Your task to perform on an android device: turn off javascript in the chrome app Image 0: 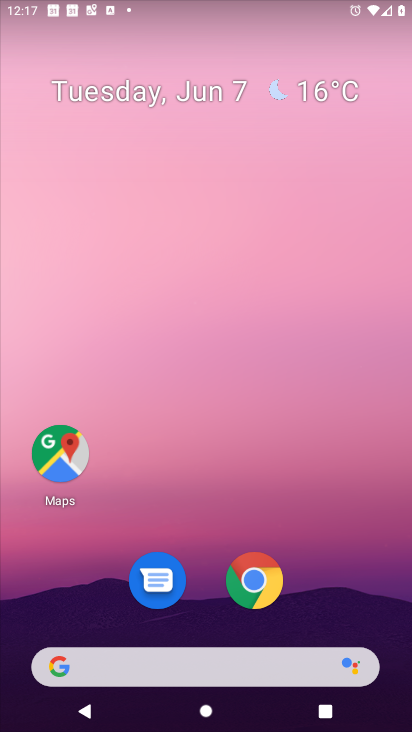
Step 0: drag from (384, 579) to (392, 198)
Your task to perform on an android device: turn off javascript in the chrome app Image 1: 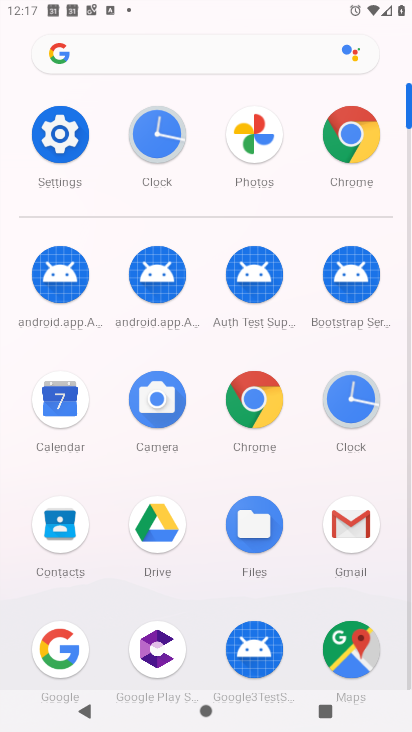
Step 1: click (354, 155)
Your task to perform on an android device: turn off javascript in the chrome app Image 2: 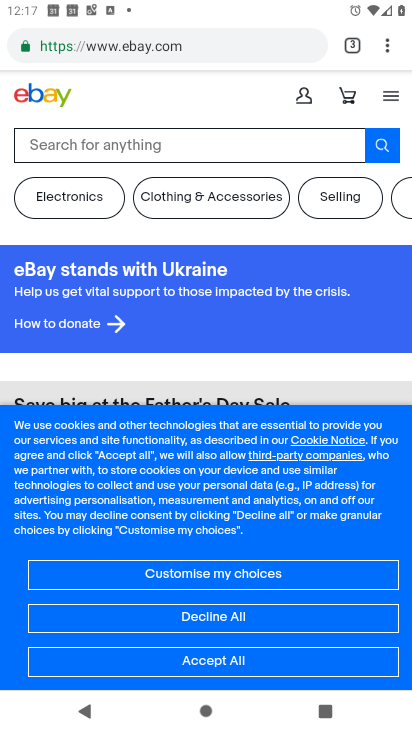
Step 2: drag from (396, 51) to (212, 561)
Your task to perform on an android device: turn off javascript in the chrome app Image 3: 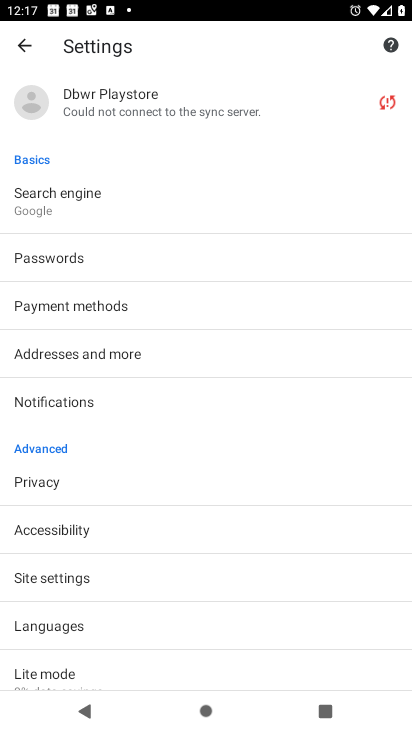
Step 3: click (81, 585)
Your task to perform on an android device: turn off javascript in the chrome app Image 4: 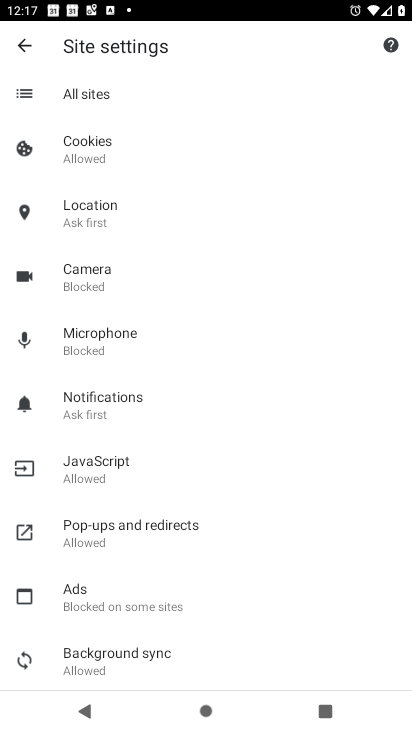
Step 4: click (69, 479)
Your task to perform on an android device: turn off javascript in the chrome app Image 5: 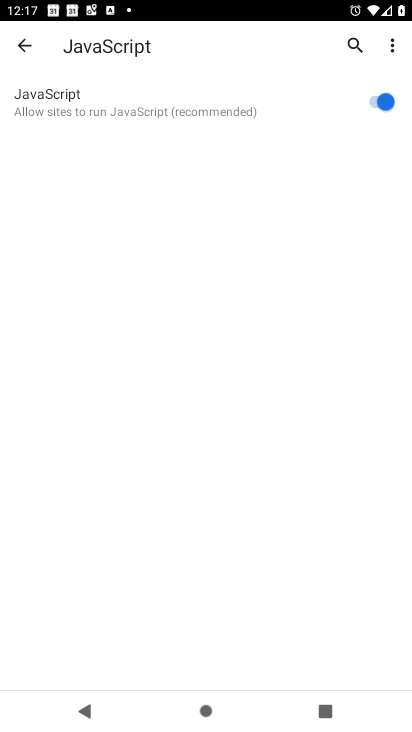
Step 5: click (384, 103)
Your task to perform on an android device: turn off javascript in the chrome app Image 6: 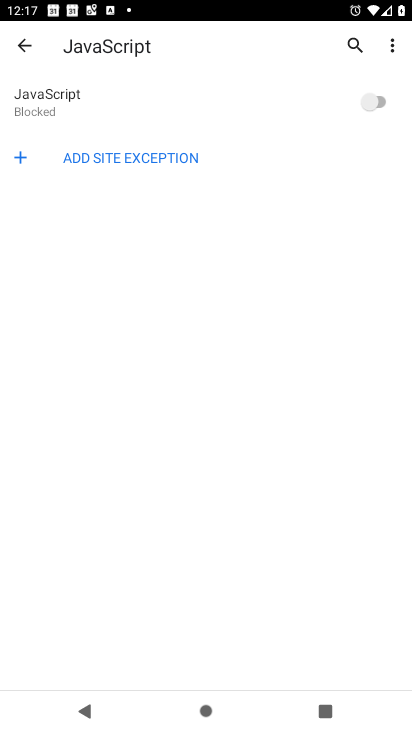
Step 6: task complete